Your task to perform on an android device: turn off location history Image 0: 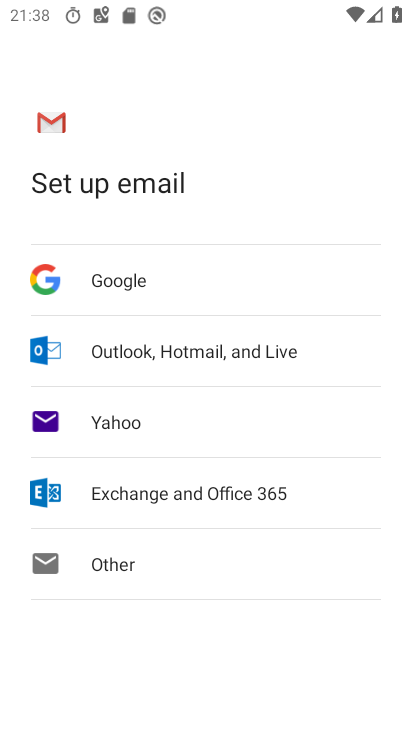
Step 0: press home button
Your task to perform on an android device: turn off location history Image 1: 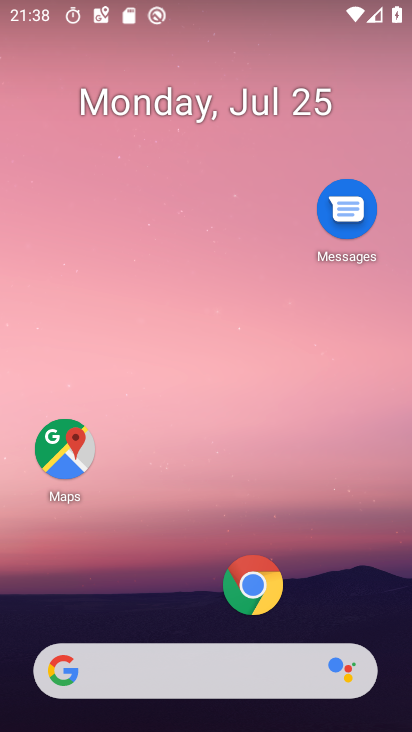
Step 1: click (66, 449)
Your task to perform on an android device: turn off location history Image 2: 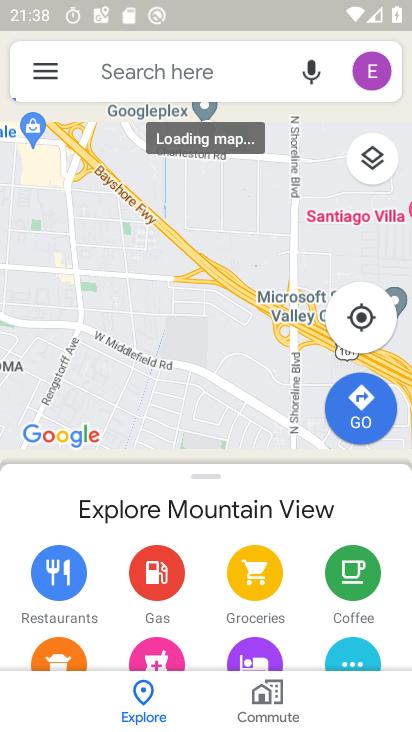
Step 2: click (42, 72)
Your task to perform on an android device: turn off location history Image 3: 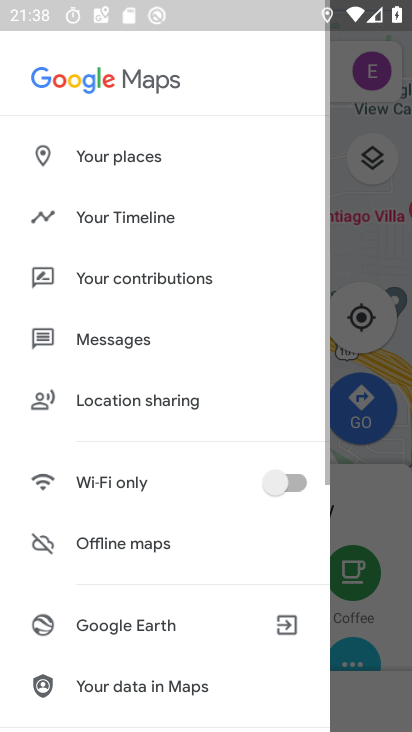
Step 3: click (103, 218)
Your task to perform on an android device: turn off location history Image 4: 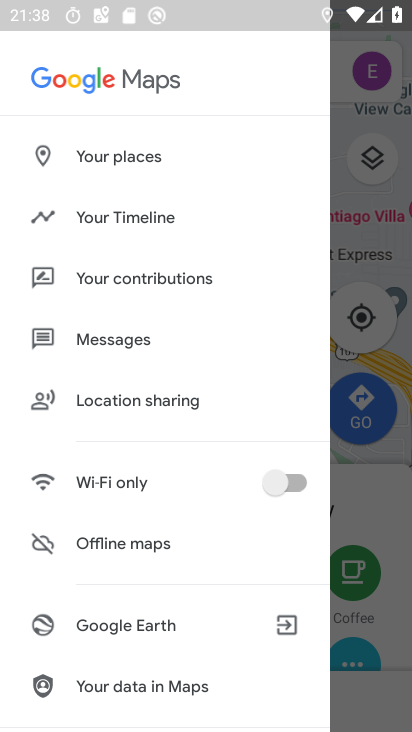
Step 4: click (153, 214)
Your task to perform on an android device: turn off location history Image 5: 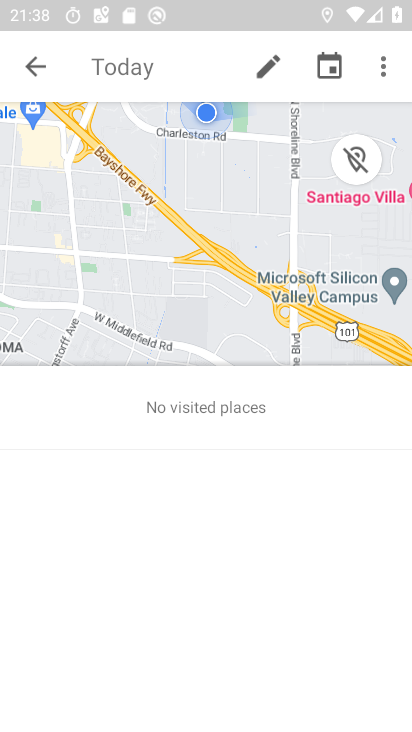
Step 5: click (383, 70)
Your task to perform on an android device: turn off location history Image 6: 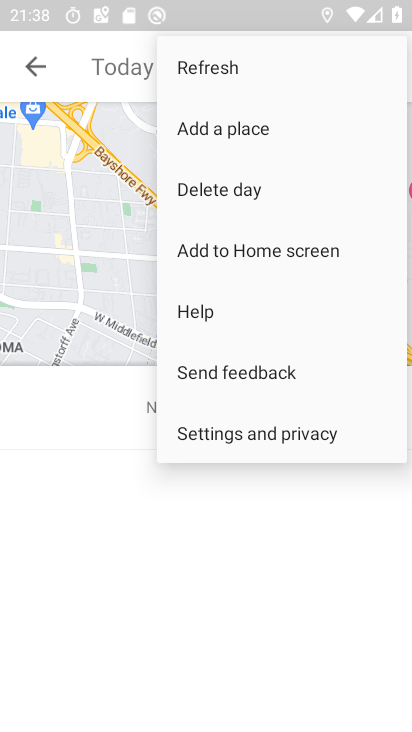
Step 6: click (216, 435)
Your task to perform on an android device: turn off location history Image 7: 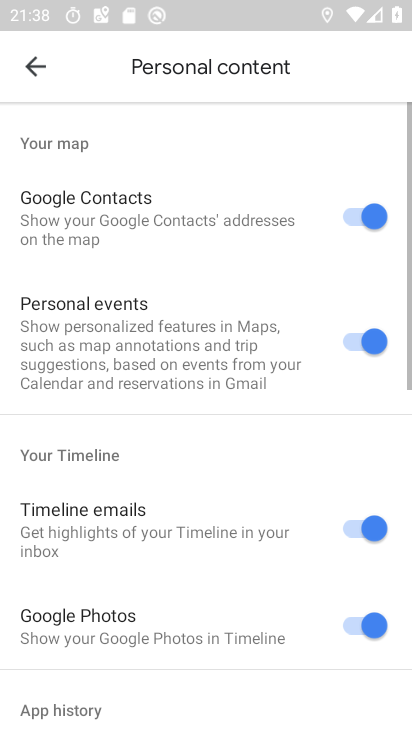
Step 7: drag from (176, 605) to (337, 164)
Your task to perform on an android device: turn off location history Image 8: 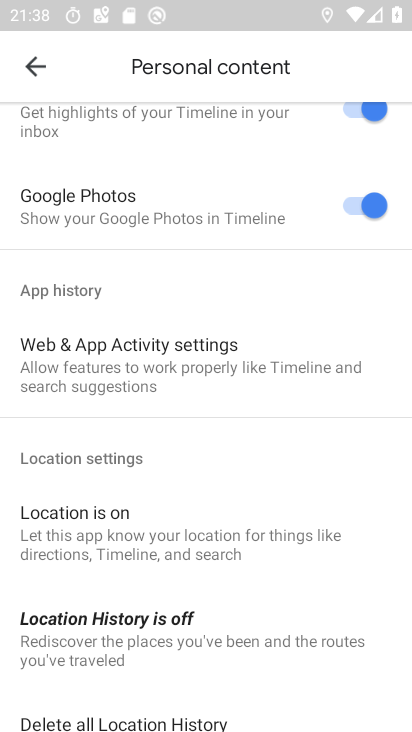
Step 8: click (151, 639)
Your task to perform on an android device: turn off location history Image 9: 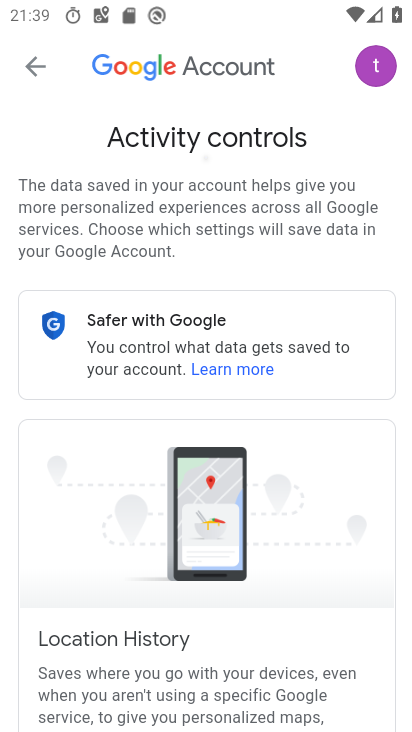
Step 9: drag from (268, 616) to (337, 103)
Your task to perform on an android device: turn off location history Image 10: 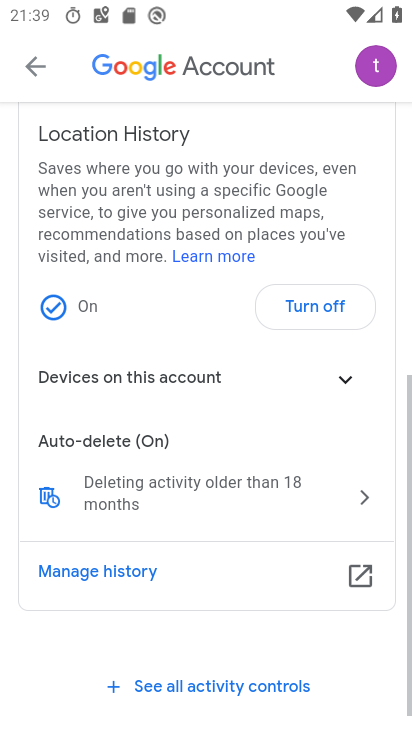
Step 10: click (306, 380)
Your task to perform on an android device: turn off location history Image 11: 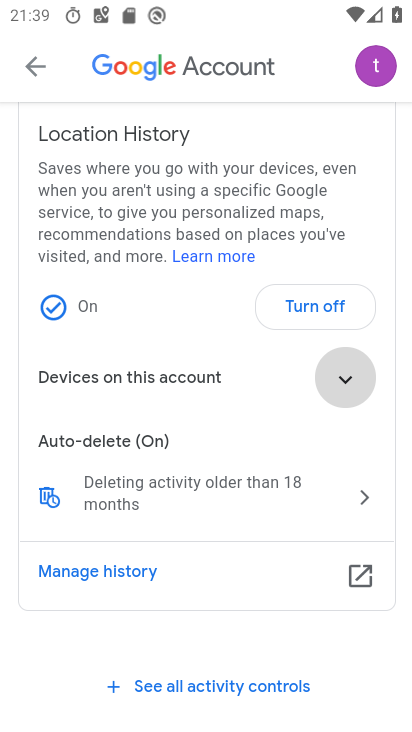
Step 11: click (310, 301)
Your task to perform on an android device: turn off location history Image 12: 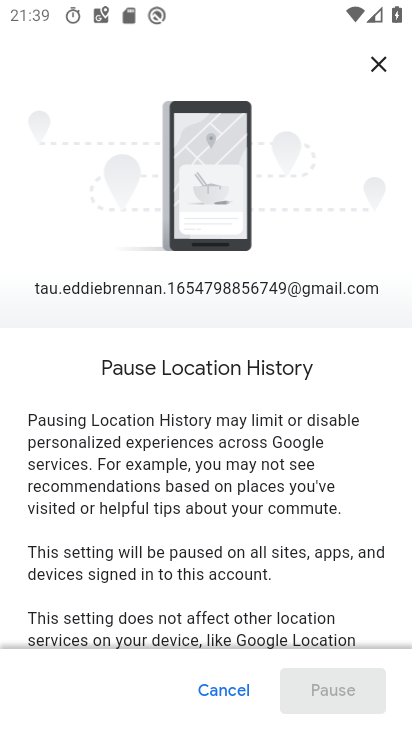
Step 12: drag from (229, 600) to (346, 61)
Your task to perform on an android device: turn off location history Image 13: 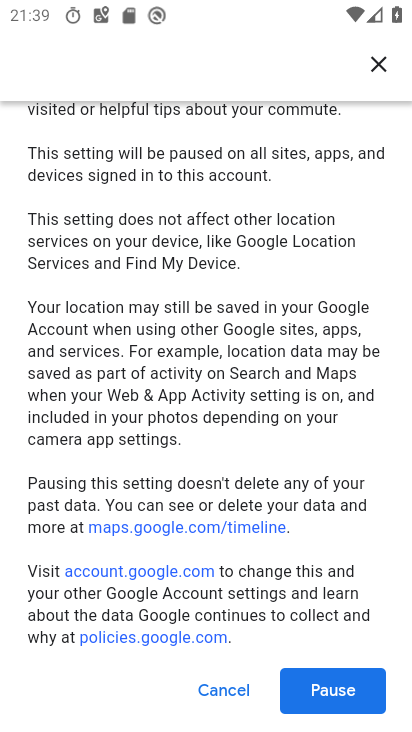
Step 13: click (335, 694)
Your task to perform on an android device: turn off location history Image 14: 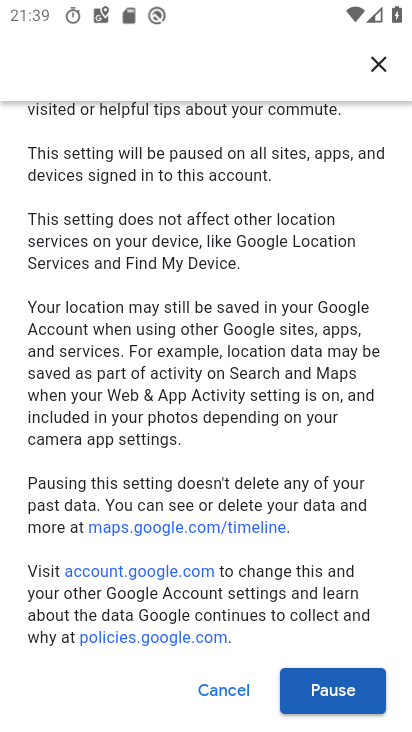
Step 14: click (337, 688)
Your task to perform on an android device: turn off location history Image 15: 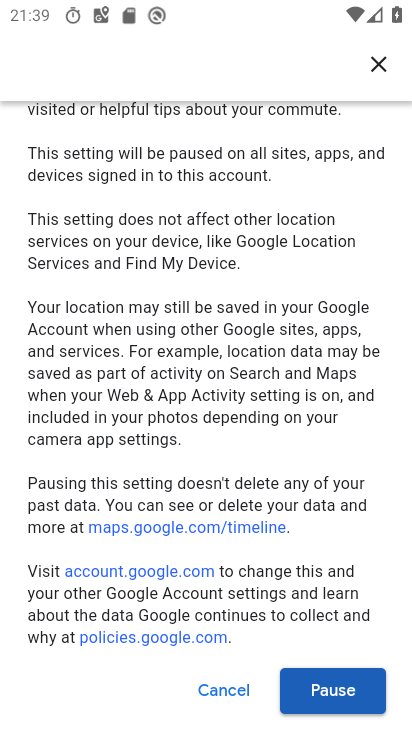
Step 15: click (328, 690)
Your task to perform on an android device: turn off location history Image 16: 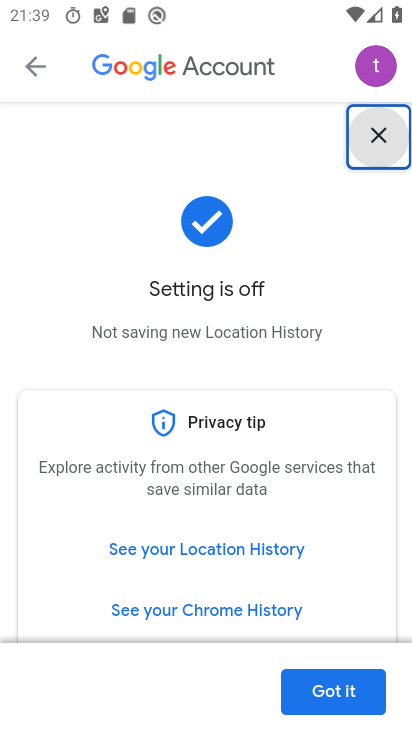
Step 16: click (337, 695)
Your task to perform on an android device: turn off location history Image 17: 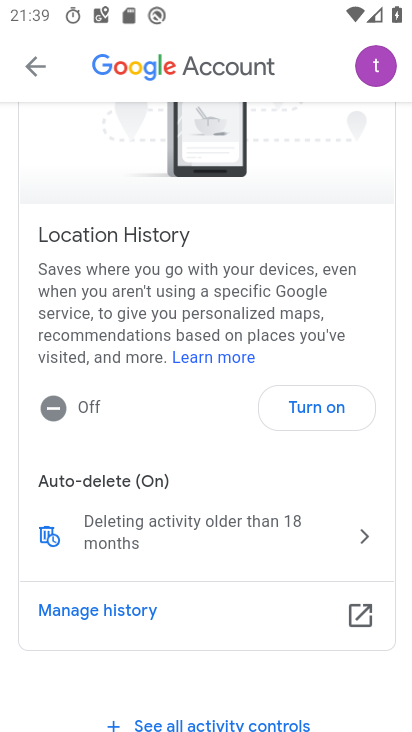
Step 17: task complete